Your task to perform on an android device: Go to Google maps Image 0: 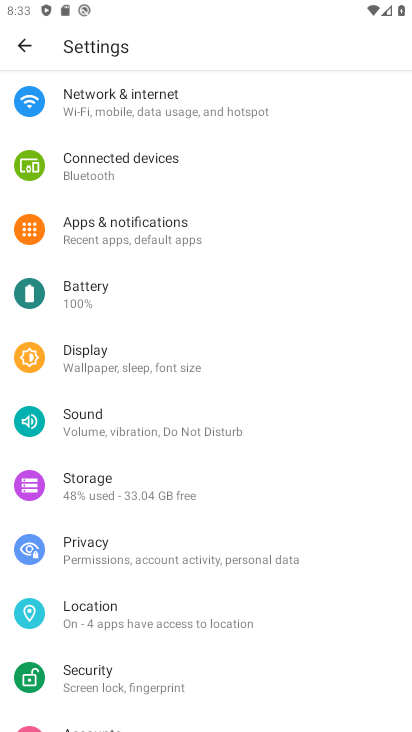
Step 0: press home button
Your task to perform on an android device: Go to Google maps Image 1: 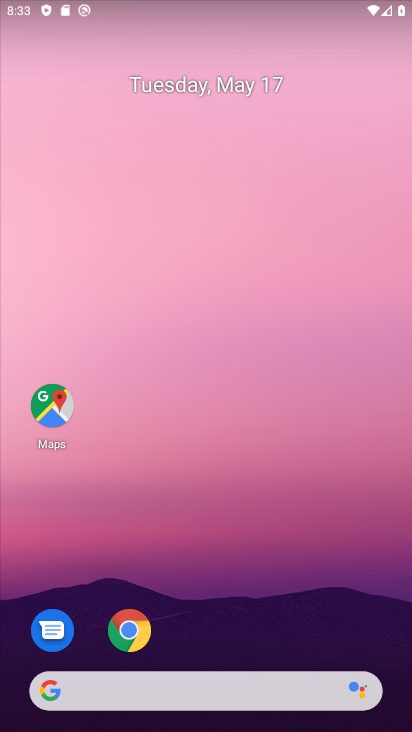
Step 1: click (63, 386)
Your task to perform on an android device: Go to Google maps Image 2: 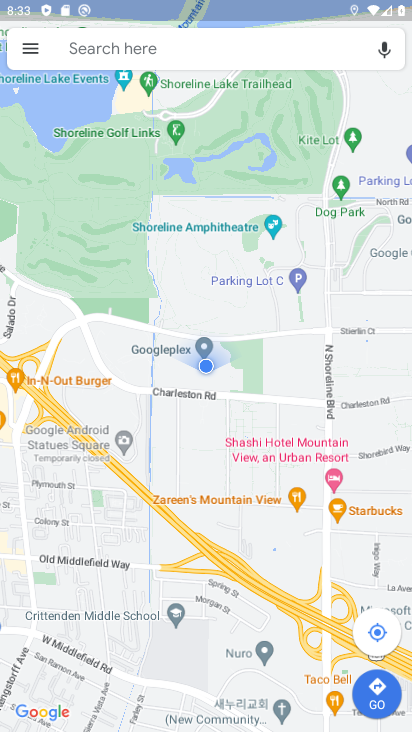
Step 2: task complete